Your task to perform on an android device: Check the news Image 0: 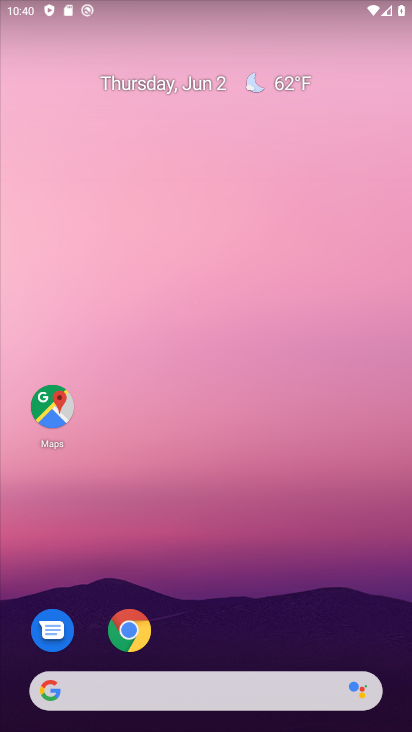
Step 0: press home button
Your task to perform on an android device: Check the news Image 1: 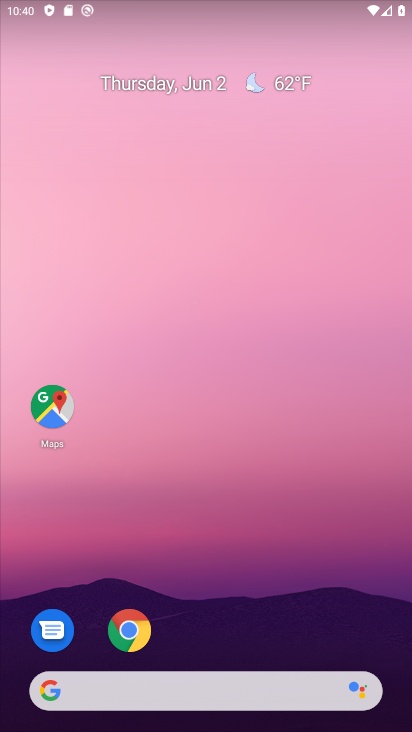
Step 1: click (59, 696)
Your task to perform on an android device: Check the news Image 2: 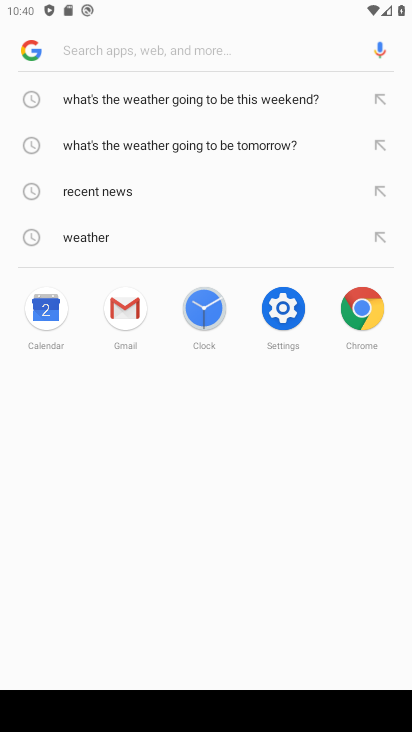
Step 2: click (107, 195)
Your task to perform on an android device: Check the news Image 3: 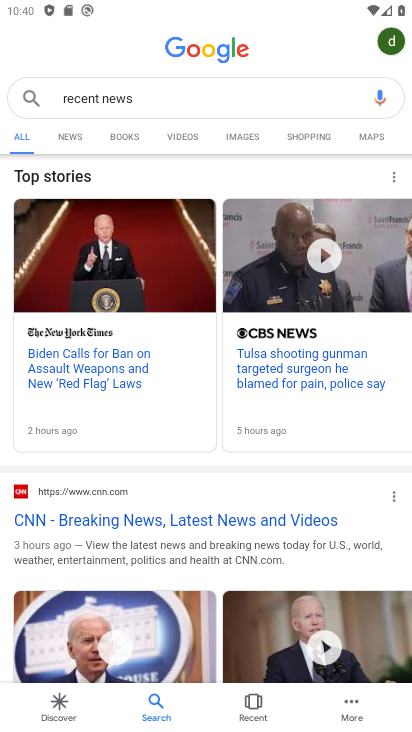
Step 3: click (75, 132)
Your task to perform on an android device: Check the news Image 4: 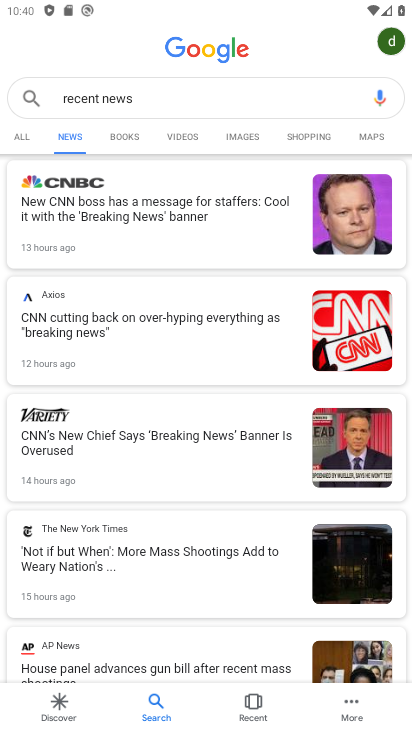
Step 4: task complete